Your task to perform on an android device: create a new album in the google photos Image 0: 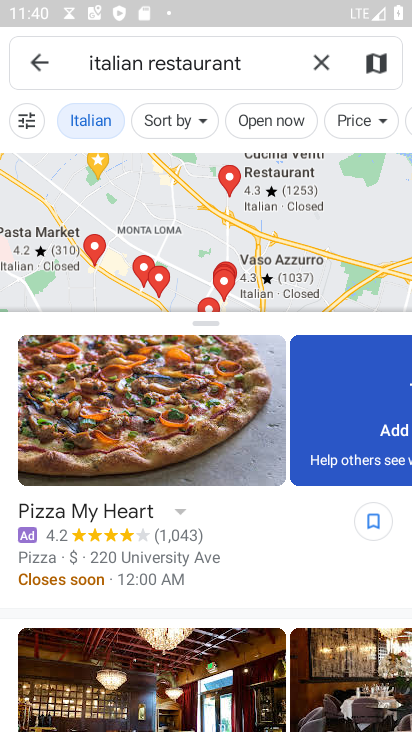
Step 0: press home button
Your task to perform on an android device: create a new album in the google photos Image 1: 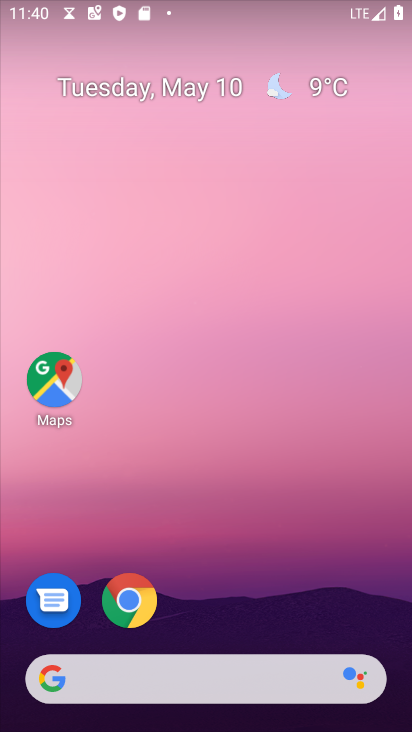
Step 1: drag from (236, 593) to (136, 73)
Your task to perform on an android device: create a new album in the google photos Image 2: 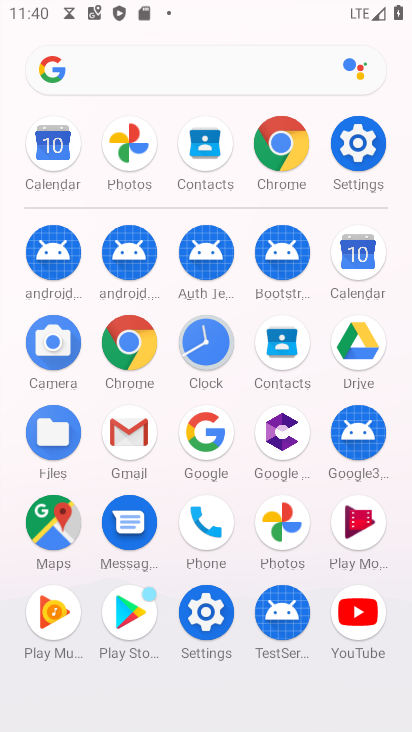
Step 2: click (286, 523)
Your task to perform on an android device: create a new album in the google photos Image 3: 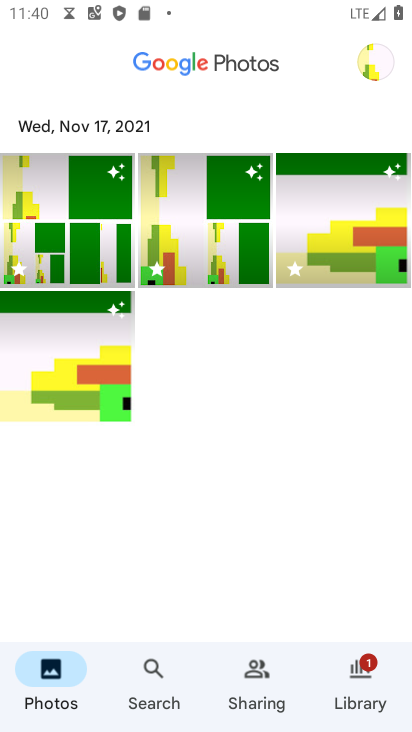
Step 3: click (347, 687)
Your task to perform on an android device: create a new album in the google photos Image 4: 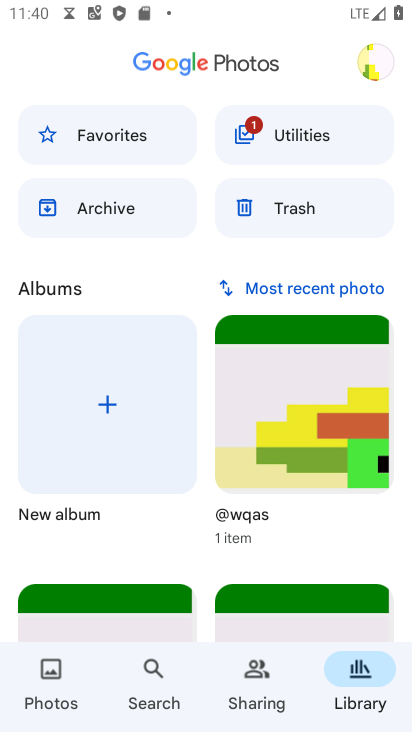
Step 4: click (104, 409)
Your task to perform on an android device: create a new album in the google photos Image 5: 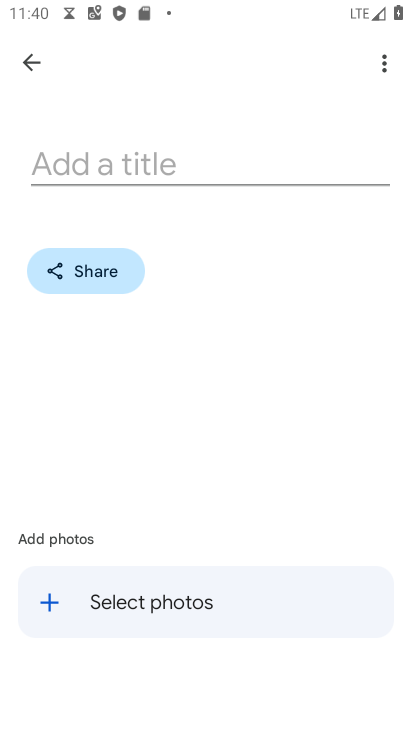
Step 5: click (246, 140)
Your task to perform on an android device: create a new album in the google photos Image 6: 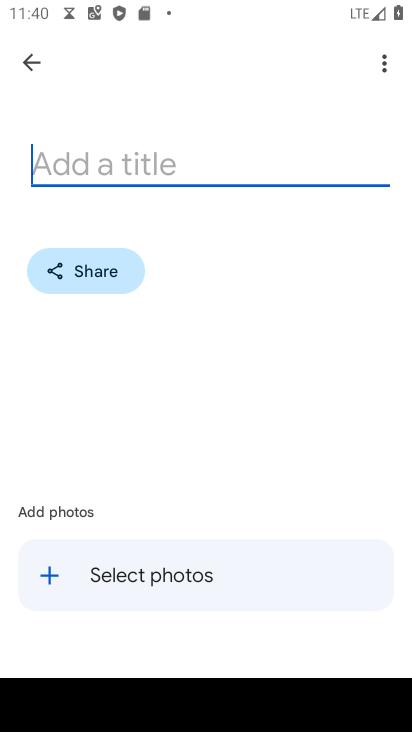
Step 6: type "fgfgdfgs"
Your task to perform on an android device: create a new album in the google photos Image 7: 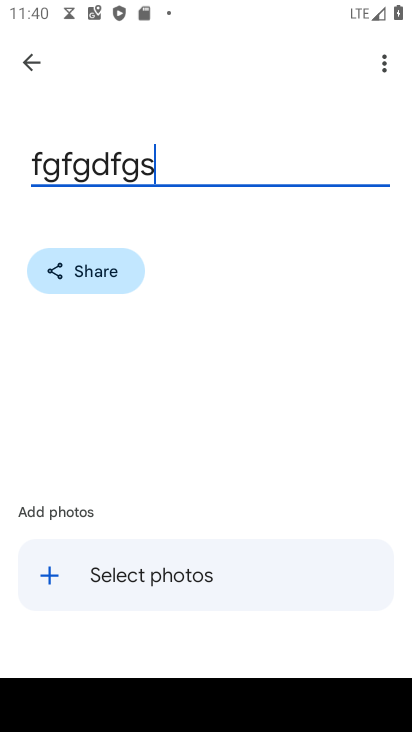
Step 7: type ""
Your task to perform on an android device: create a new album in the google photos Image 8: 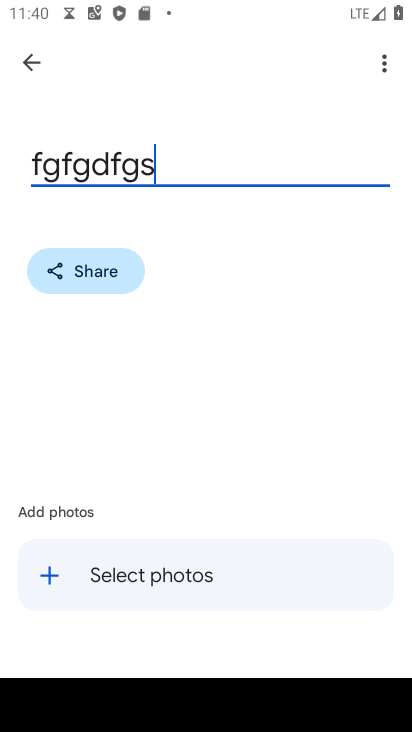
Step 8: click (102, 575)
Your task to perform on an android device: create a new album in the google photos Image 9: 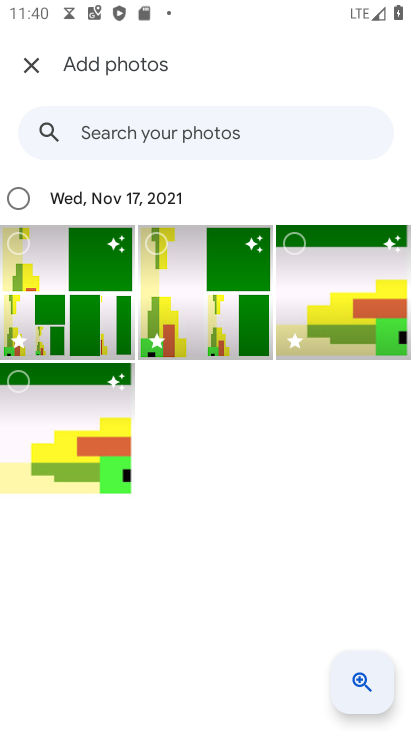
Step 9: click (167, 298)
Your task to perform on an android device: create a new album in the google photos Image 10: 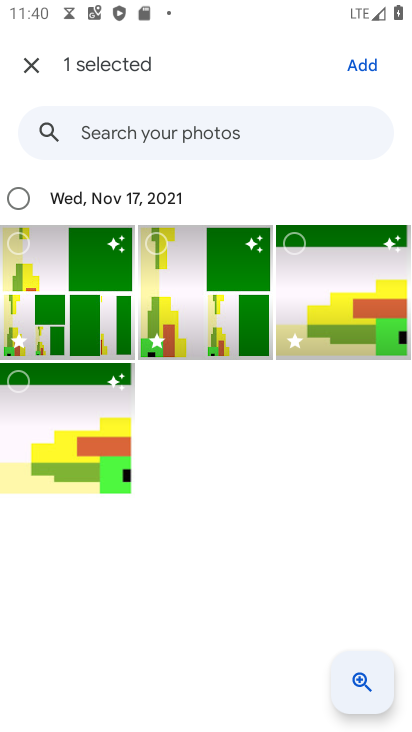
Step 10: click (321, 311)
Your task to perform on an android device: create a new album in the google photos Image 11: 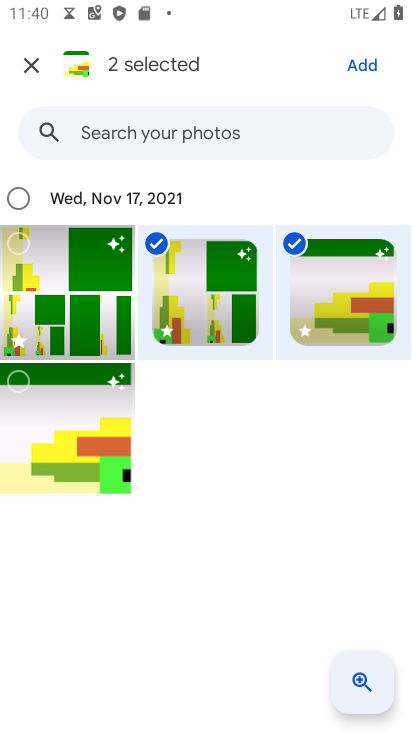
Step 11: click (357, 66)
Your task to perform on an android device: create a new album in the google photos Image 12: 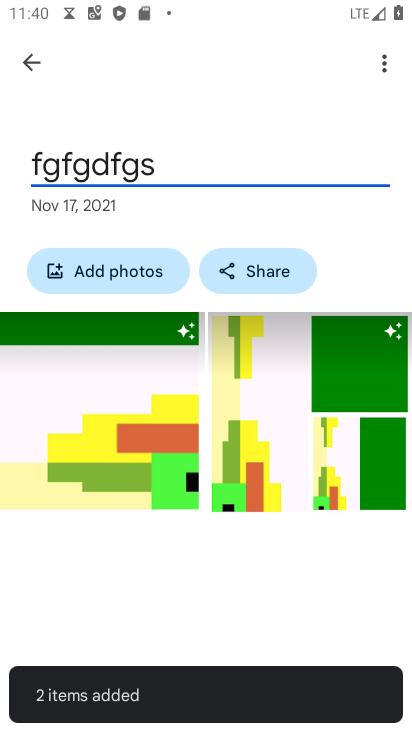
Step 12: task complete